Your task to perform on an android device: Toggle the flashlight Image 0: 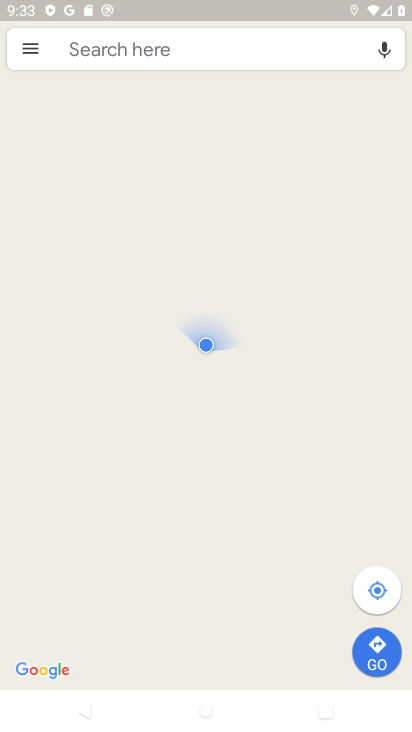
Step 0: press home button
Your task to perform on an android device: Toggle the flashlight Image 1: 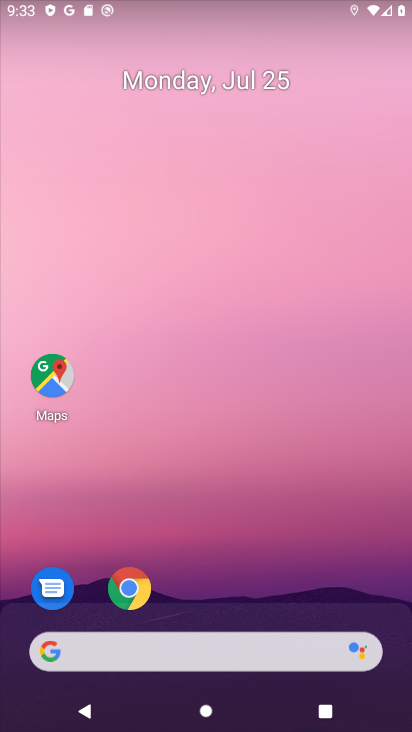
Step 1: task complete